Your task to perform on an android device: change text size in settings app Image 0: 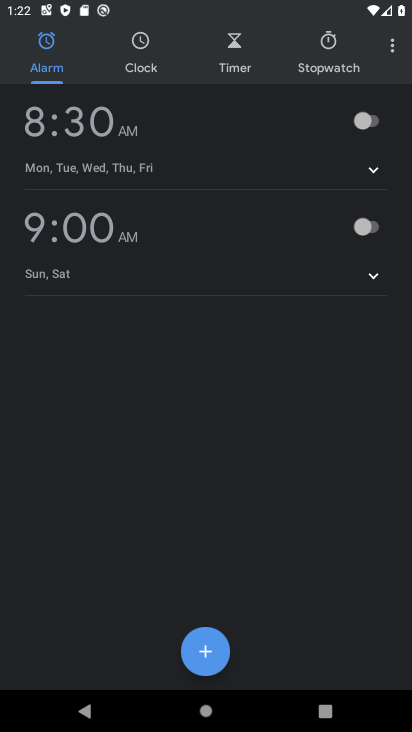
Step 0: press home button
Your task to perform on an android device: change text size in settings app Image 1: 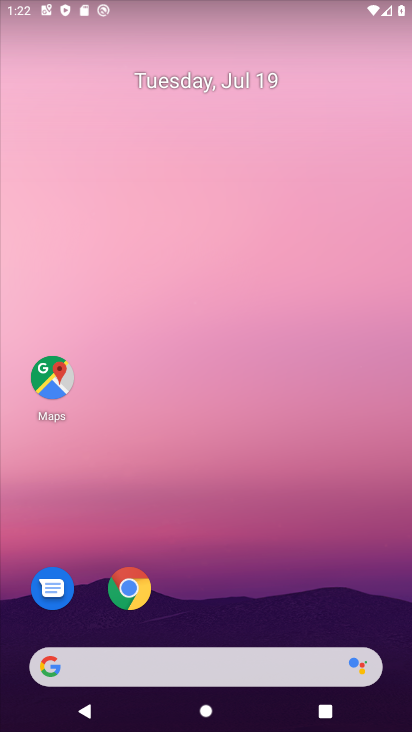
Step 1: drag from (7, 700) to (379, 47)
Your task to perform on an android device: change text size in settings app Image 2: 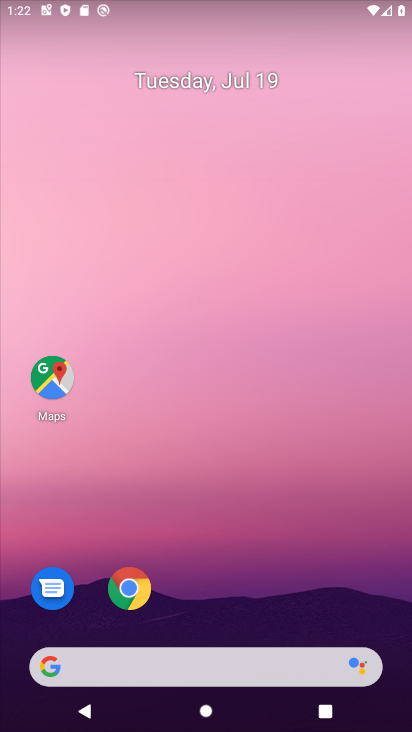
Step 2: drag from (60, 625) to (172, 160)
Your task to perform on an android device: change text size in settings app Image 3: 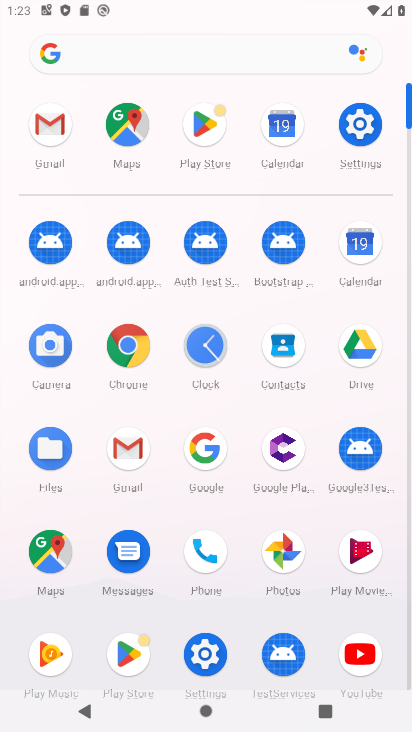
Step 3: click (201, 649)
Your task to perform on an android device: change text size in settings app Image 4: 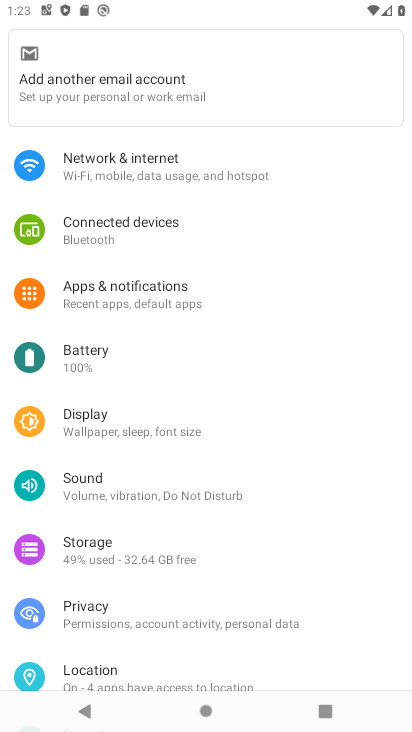
Step 4: click (154, 430)
Your task to perform on an android device: change text size in settings app Image 5: 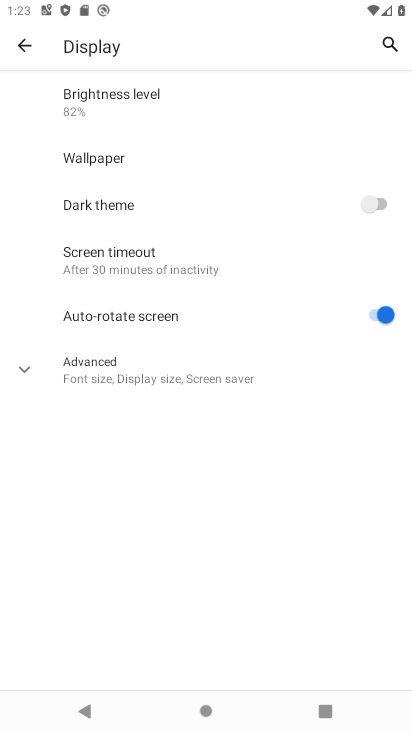
Step 5: click (130, 358)
Your task to perform on an android device: change text size in settings app Image 6: 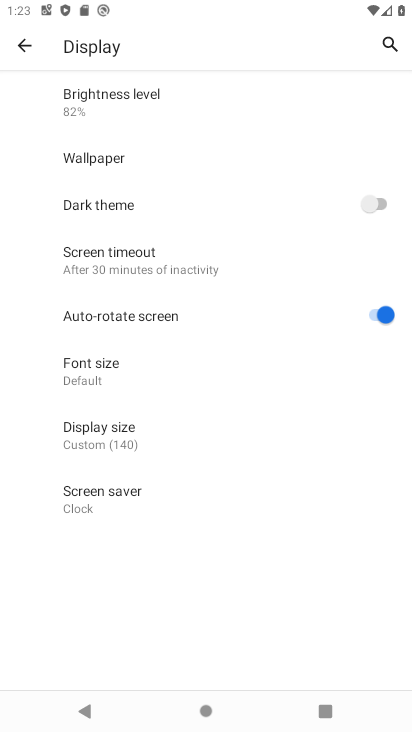
Step 6: click (122, 375)
Your task to perform on an android device: change text size in settings app Image 7: 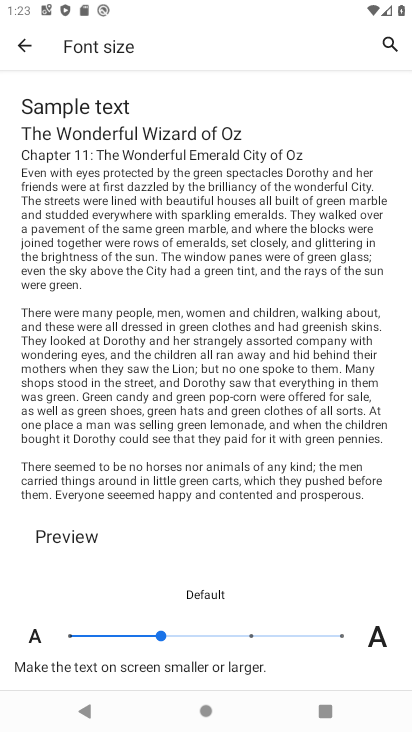
Step 7: click (189, 627)
Your task to perform on an android device: change text size in settings app Image 8: 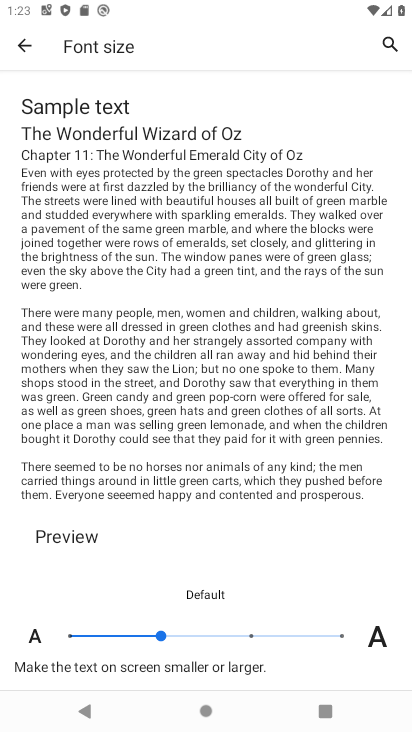
Step 8: click (186, 629)
Your task to perform on an android device: change text size in settings app Image 9: 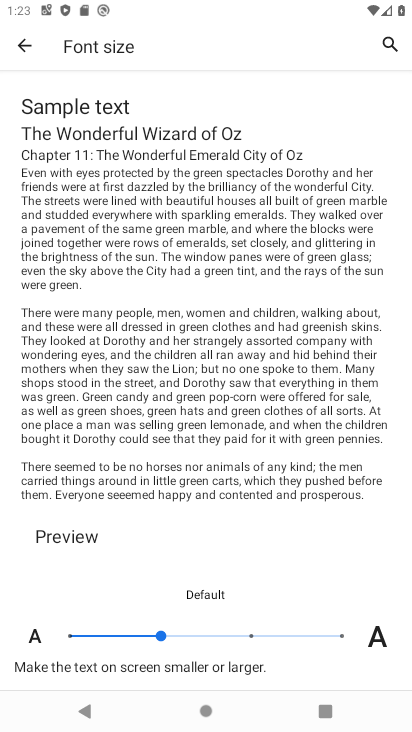
Step 9: click (167, 635)
Your task to perform on an android device: change text size in settings app Image 10: 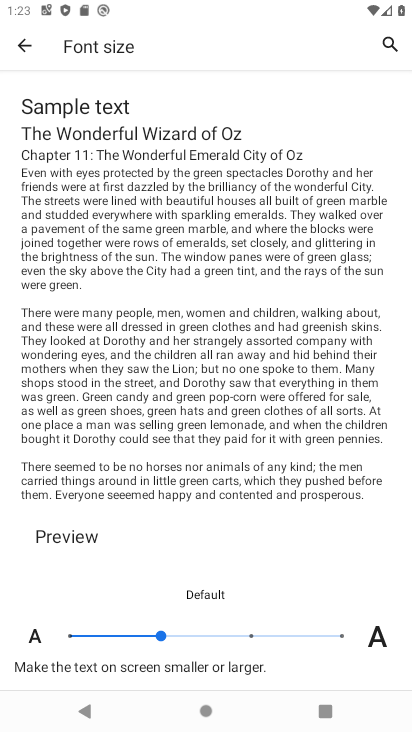
Step 10: click (167, 633)
Your task to perform on an android device: change text size in settings app Image 11: 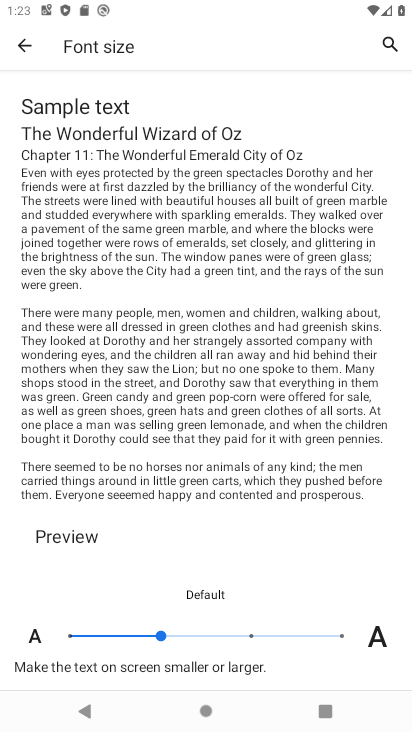
Step 11: click (172, 628)
Your task to perform on an android device: change text size in settings app Image 12: 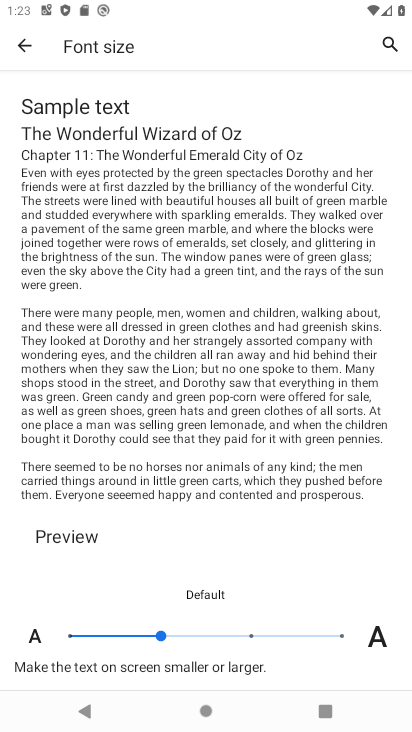
Step 12: click (173, 637)
Your task to perform on an android device: change text size in settings app Image 13: 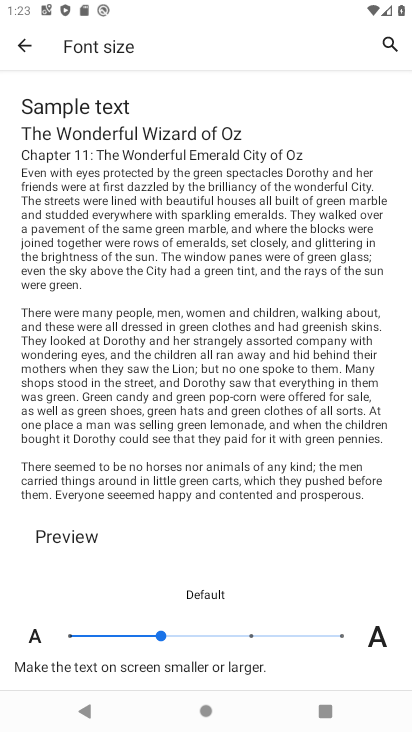
Step 13: drag from (165, 638) to (208, 640)
Your task to perform on an android device: change text size in settings app Image 14: 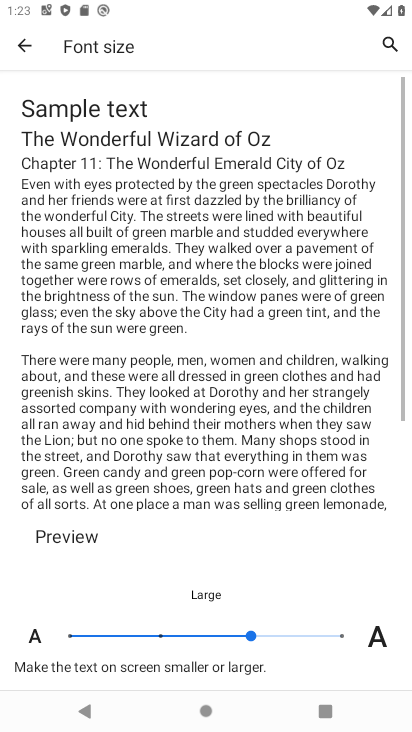
Step 14: click (175, 634)
Your task to perform on an android device: change text size in settings app Image 15: 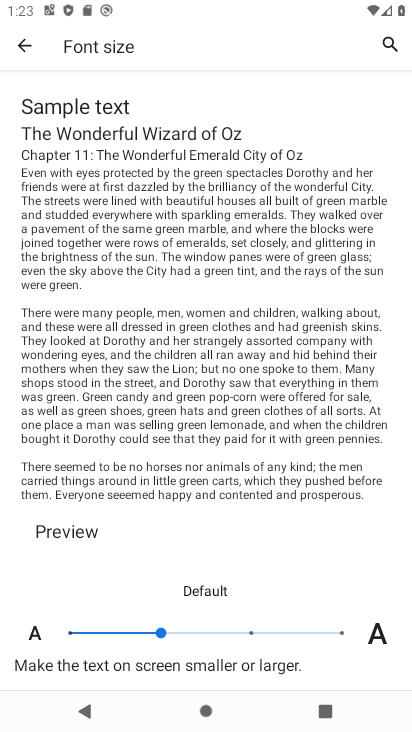
Step 15: click (199, 636)
Your task to perform on an android device: change text size in settings app Image 16: 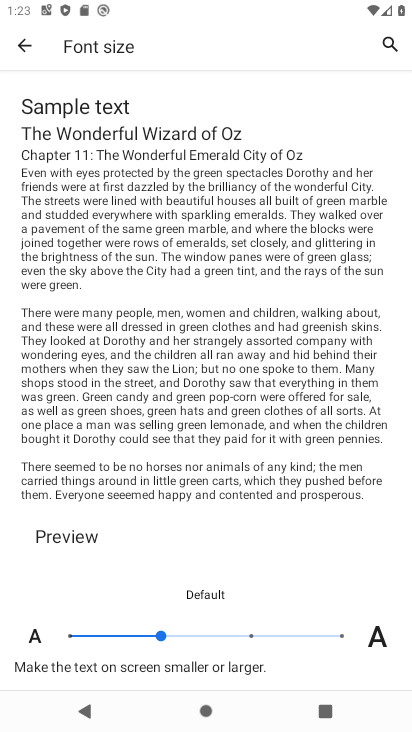
Step 16: click (182, 636)
Your task to perform on an android device: change text size in settings app Image 17: 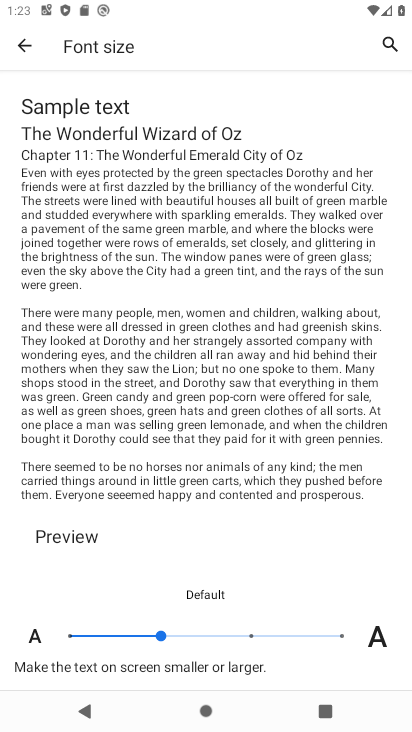
Step 17: click (182, 629)
Your task to perform on an android device: change text size in settings app Image 18: 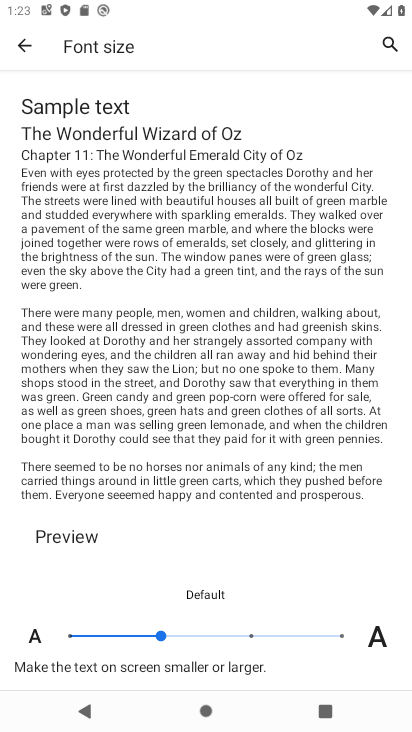
Step 18: task complete